Your task to perform on an android device: open app "Nova Launcher" Image 0: 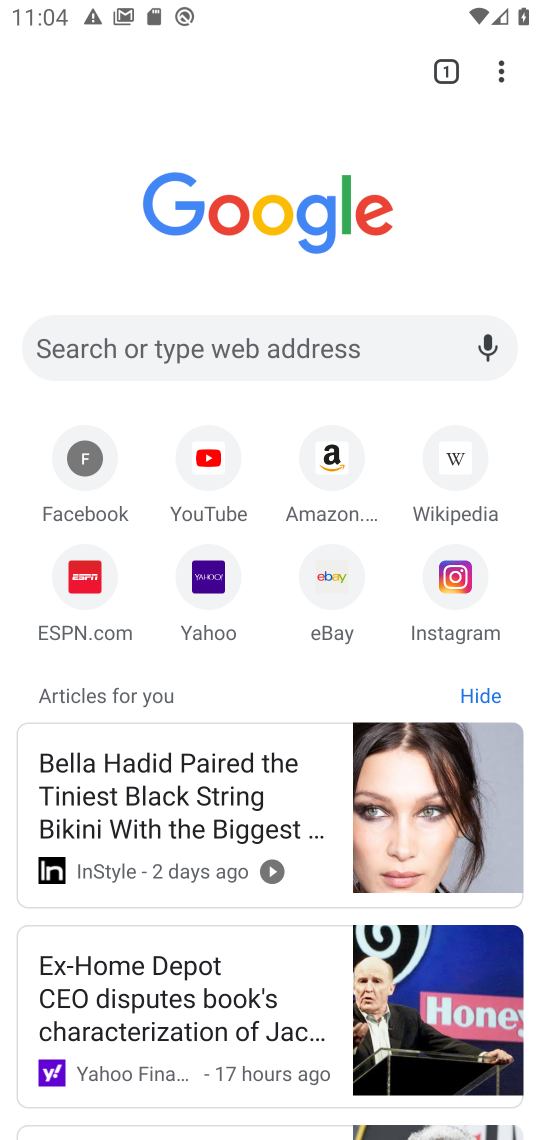
Step 0: press home button
Your task to perform on an android device: open app "Nova Launcher" Image 1: 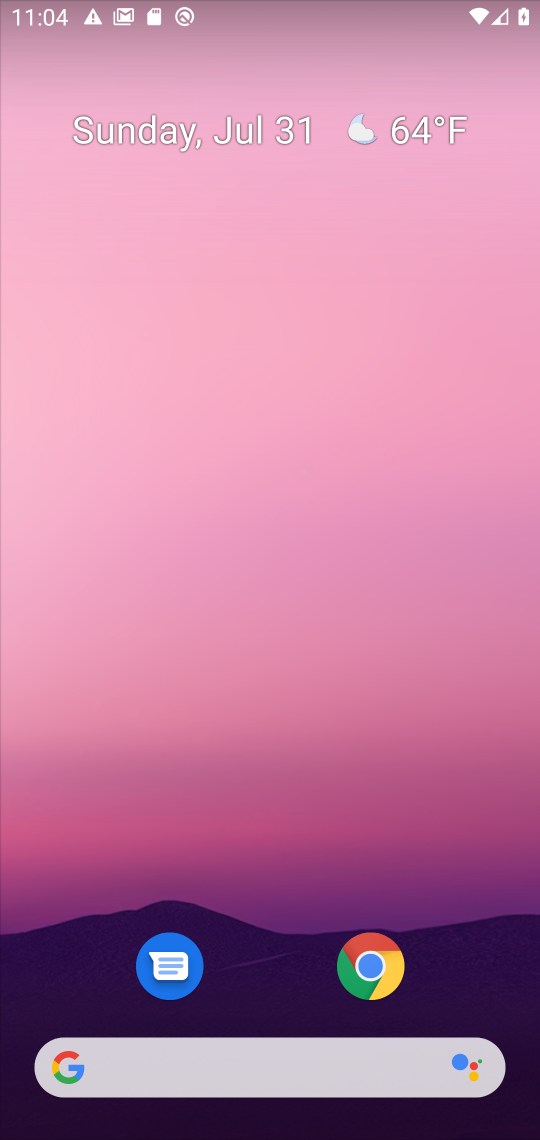
Step 1: drag from (253, 1012) to (220, 4)
Your task to perform on an android device: open app "Nova Launcher" Image 2: 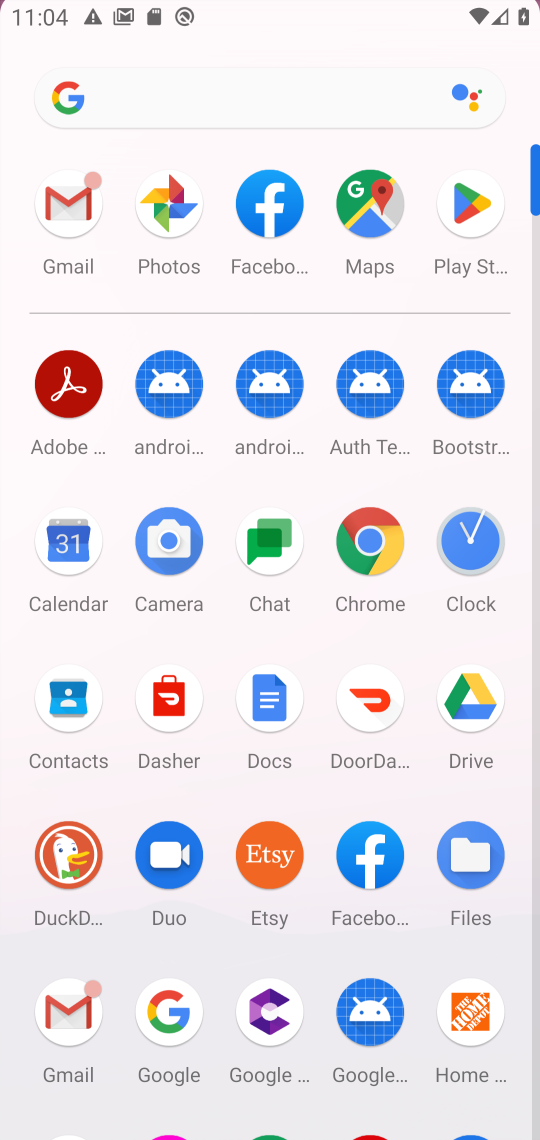
Step 2: click (466, 235)
Your task to perform on an android device: open app "Nova Launcher" Image 3: 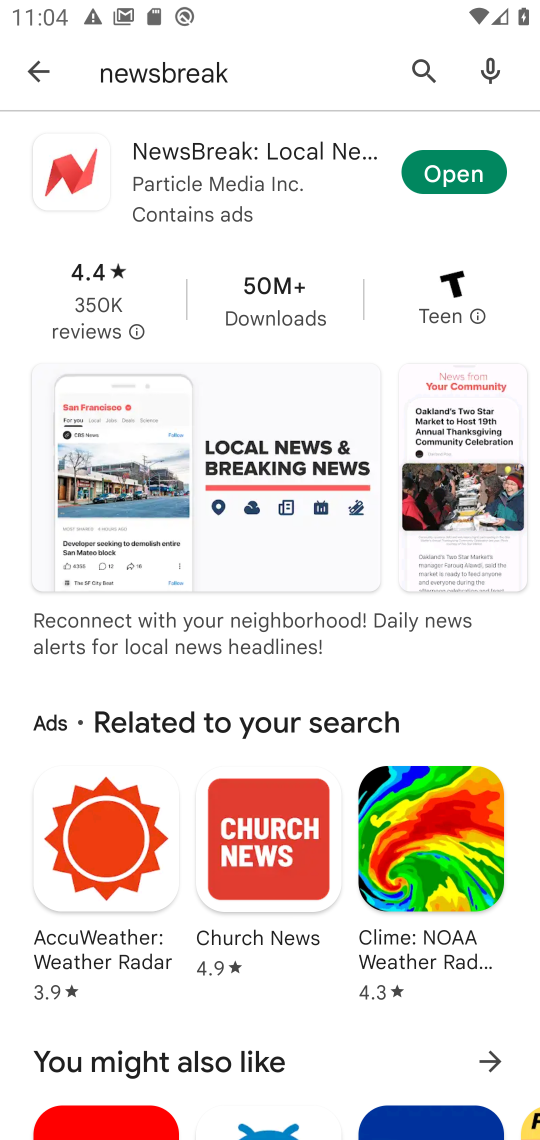
Step 3: click (239, 91)
Your task to perform on an android device: open app "Nova Launcher" Image 4: 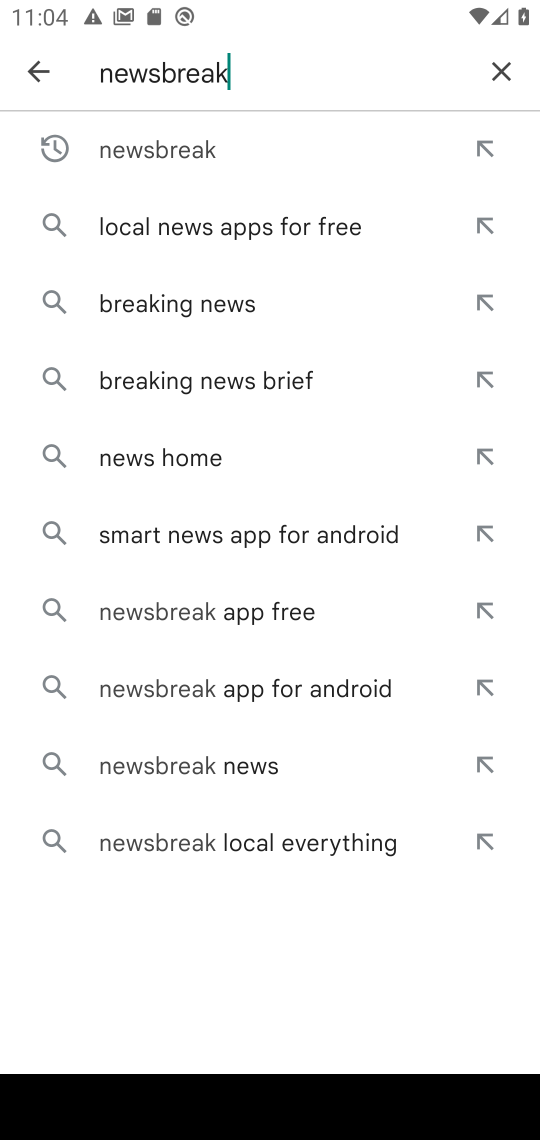
Step 4: click (489, 71)
Your task to perform on an android device: open app "Nova Launcher" Image 5: 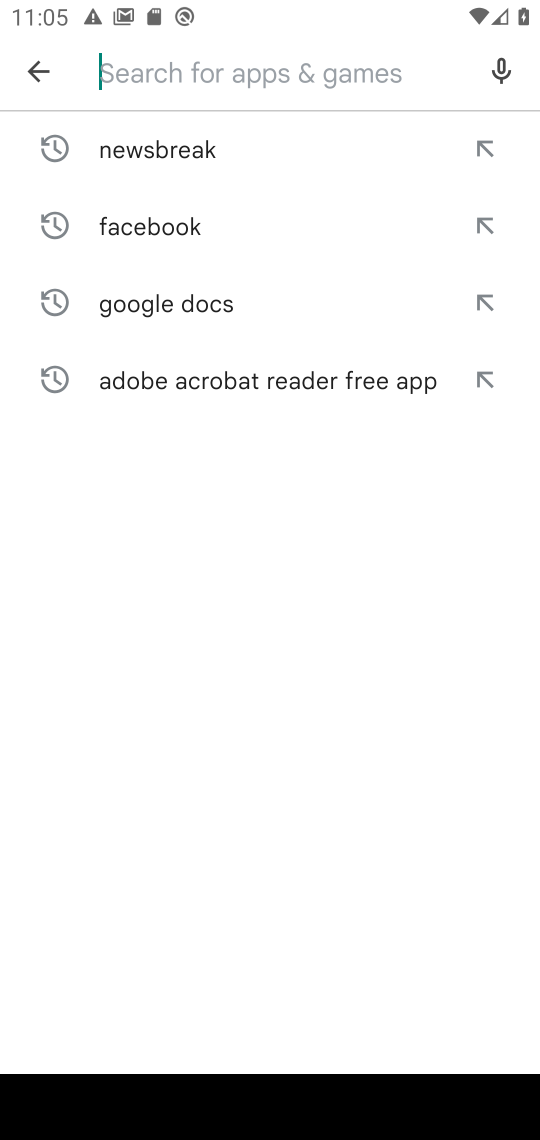
Step 5: type "Nova launcher"
Your task to perform on an android device: open app "Nova Launcher" Image 6: 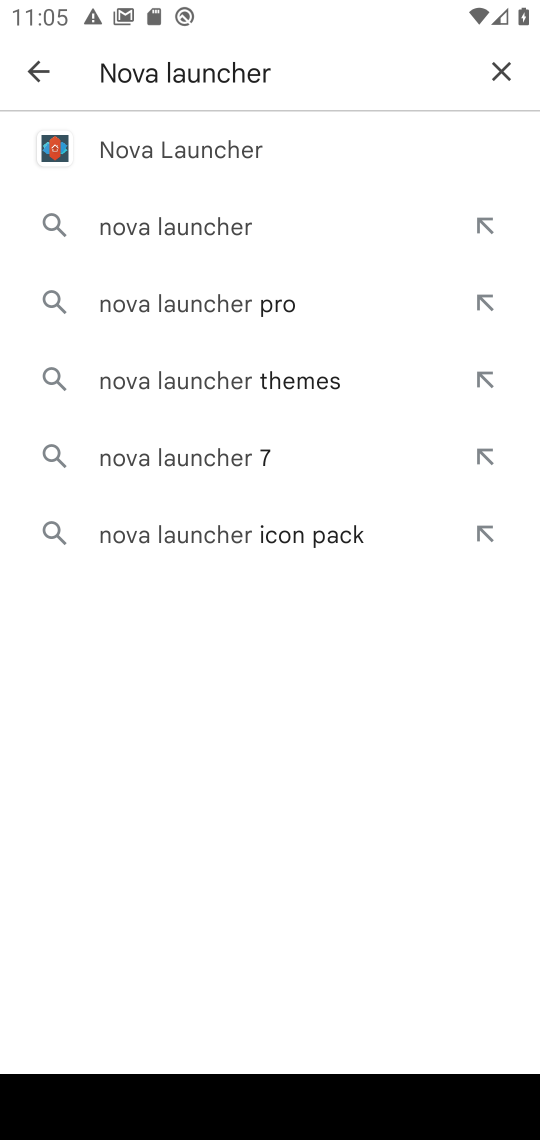
Step 6: click (224, 147)
Your task to perform on an android device: open app "Nova Launcher" Image 7: 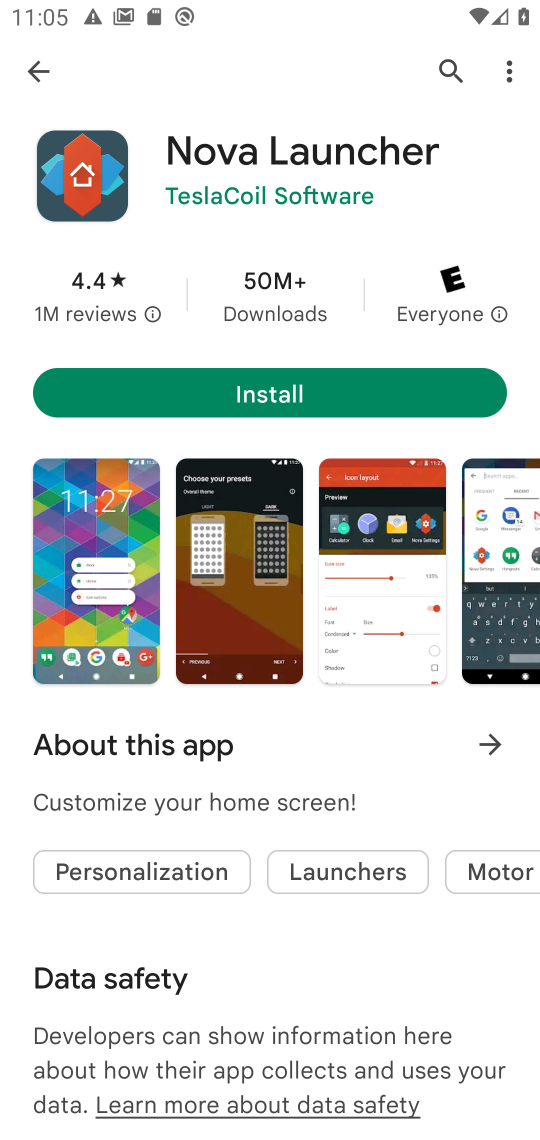
Step 7: task complete